Your task to perform on an android device: Open network settings Image 0: 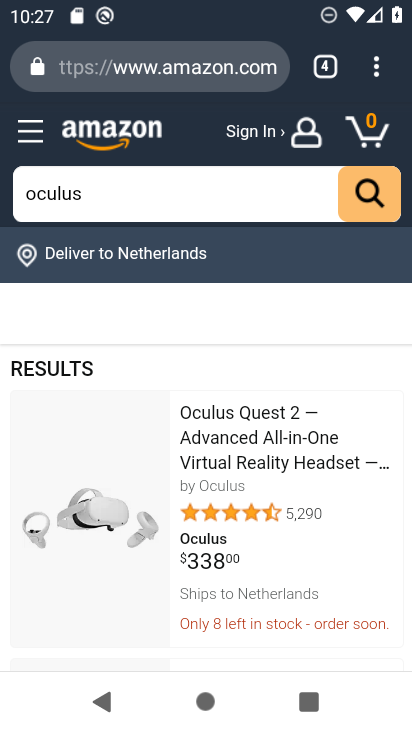
Step 0: press home button
Your task to perform on an android device: Open network settings Image 1: 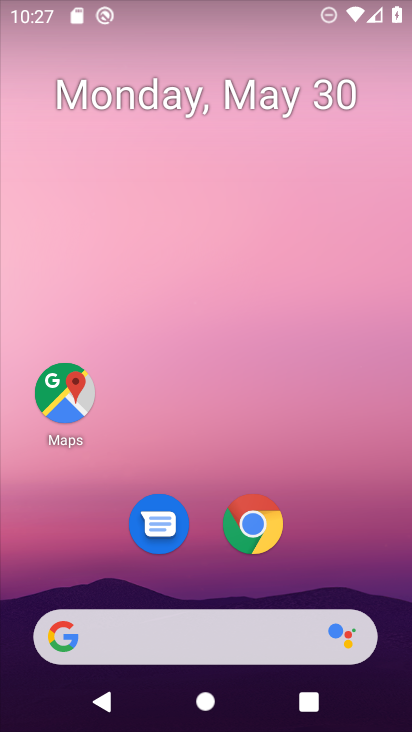
Step 1: drag from (326, 542) to (301, 48)
Your task to perform on an android device: Open network settings Image 2: 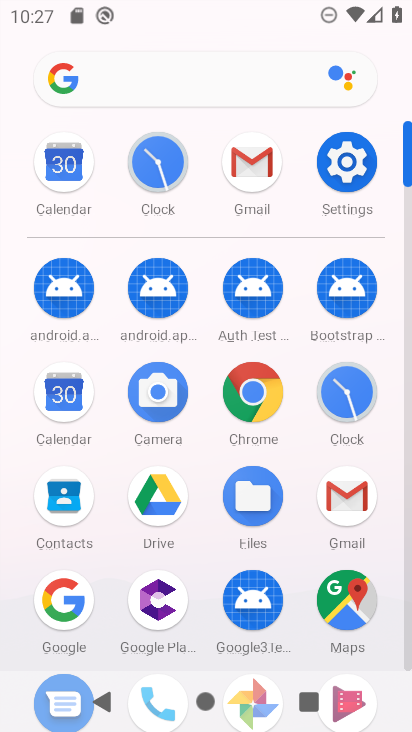
Step 2: click (343, 163)
Your task to perform on an android device: Open network settings Image 3: 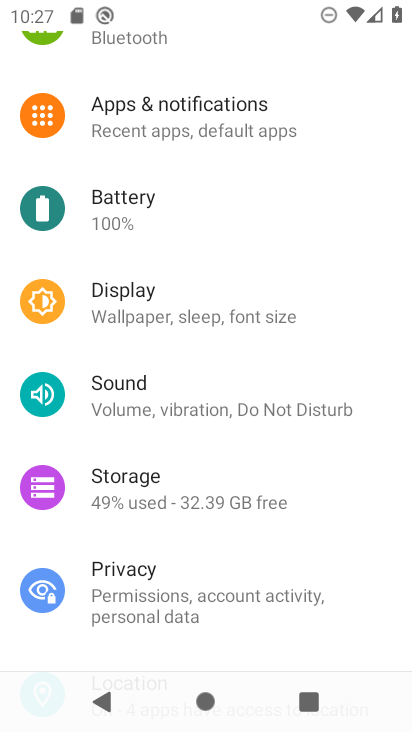
Step 3: drag from (261, 178) to (245, 535)
Your task to perform on an android device: Open network settings Image 4: 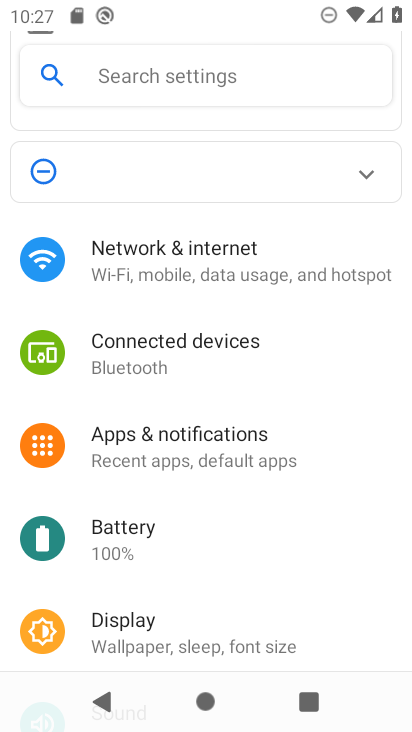
Step 4: click (244, 266)
Your task to perform on an android device: Open network settings Image 5: 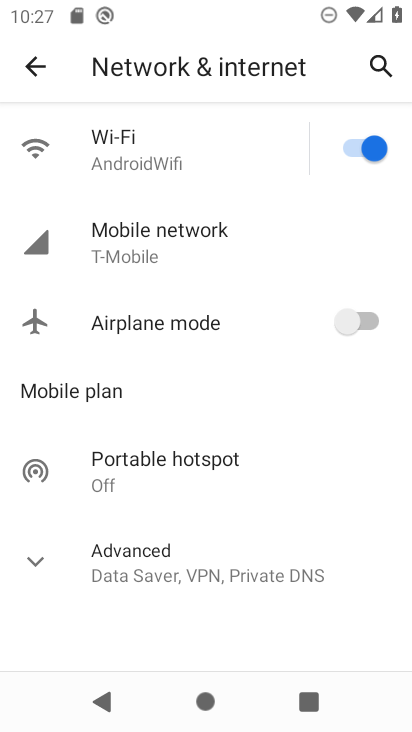
Step 5: task complete